Your task to perform on an android device: open app "Speedtest by Ookla" Image 0: 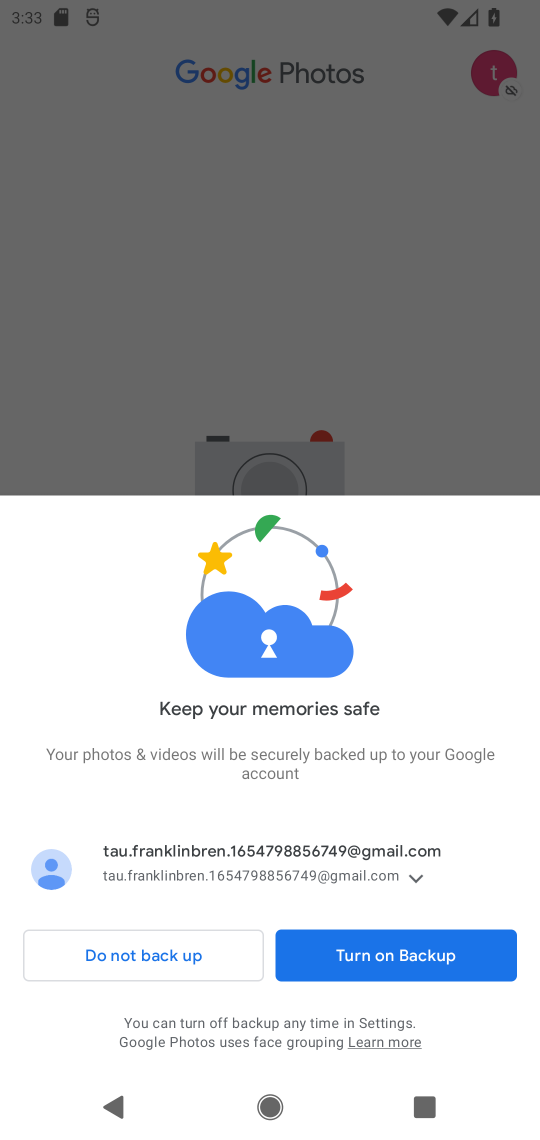
Step 0: press home button
Your task to perform on an android device: open app "Speedtest by Ookla" Image 1: 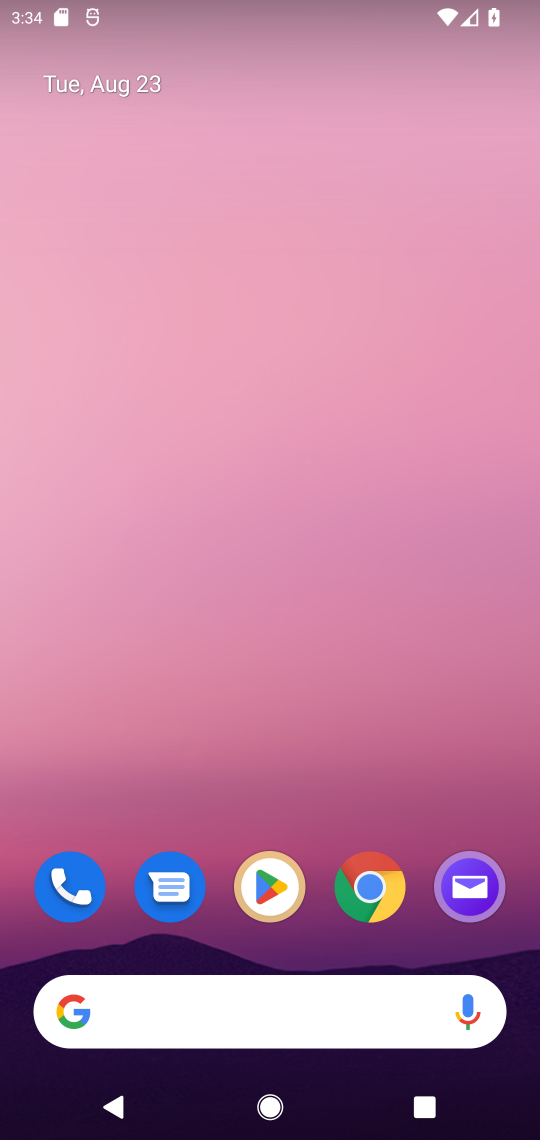
Step 1: click (260, 890)
Your task to perform on an android device: open app "Speedtest by Ookla" Image 2: 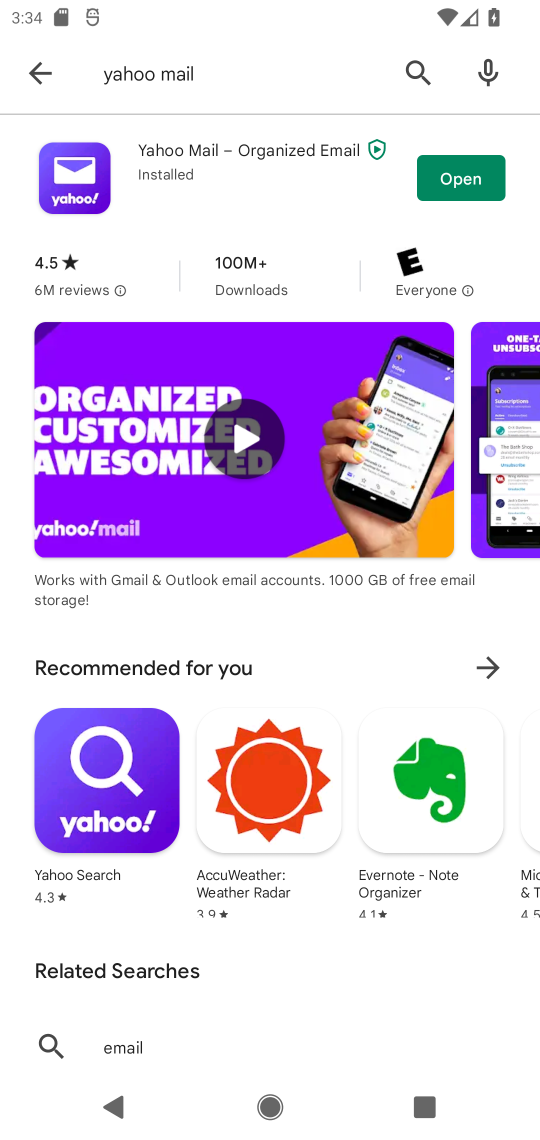
Step 2: click (38, 64)
Your task to perform on an android device: open app "Speedtest by Ookla" Image 3: 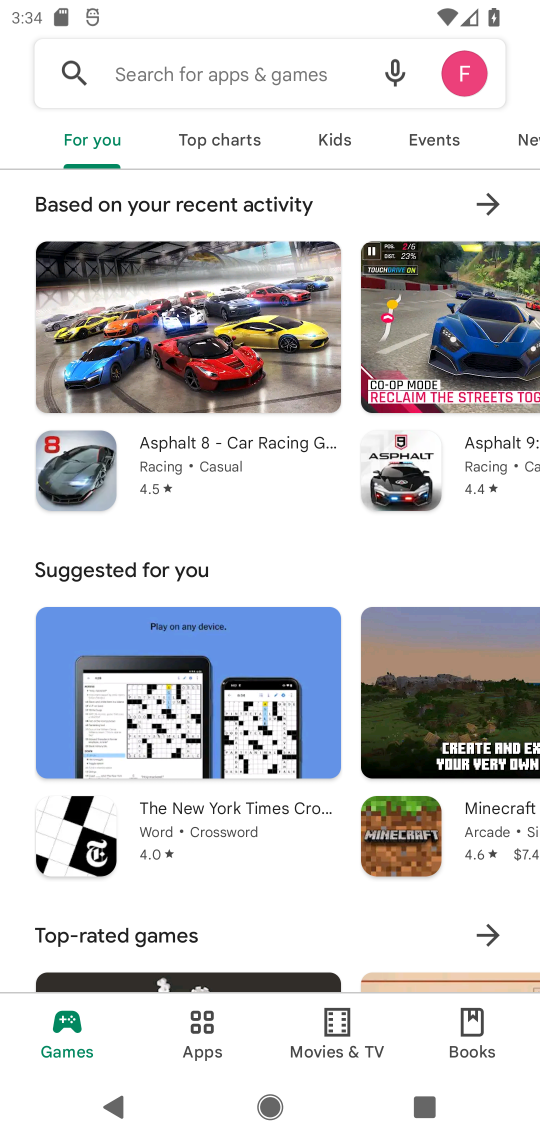
Step 3: click (176, 62)
Your task to perform on an android device: open app "Speedtest by Ookla" Image 4: 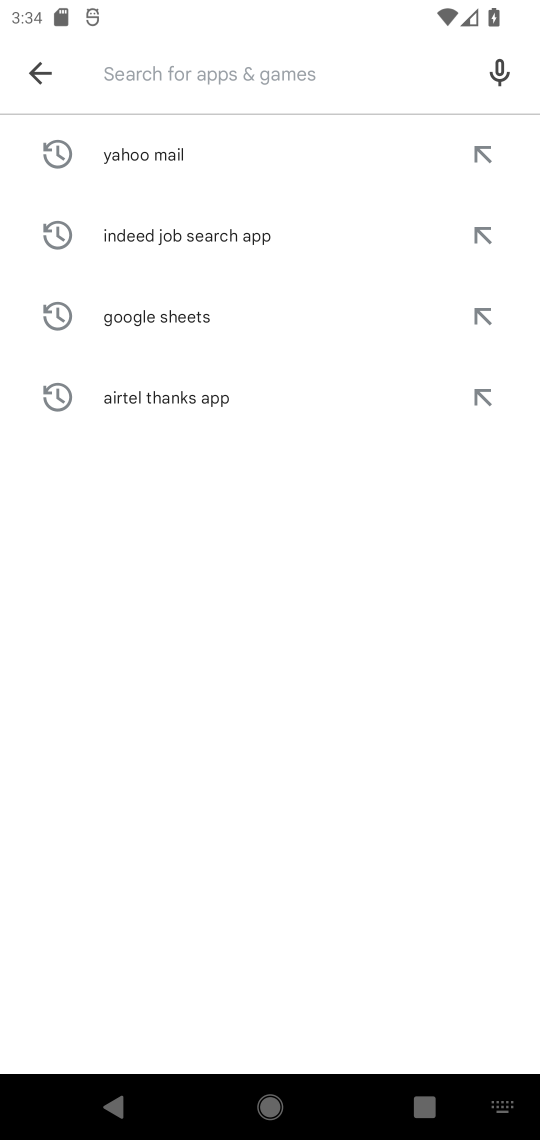
Step 4: type "Speedtest by Ookla"
Your task to perform on an android device: open app "Speedtest by Ookla" Image 5: 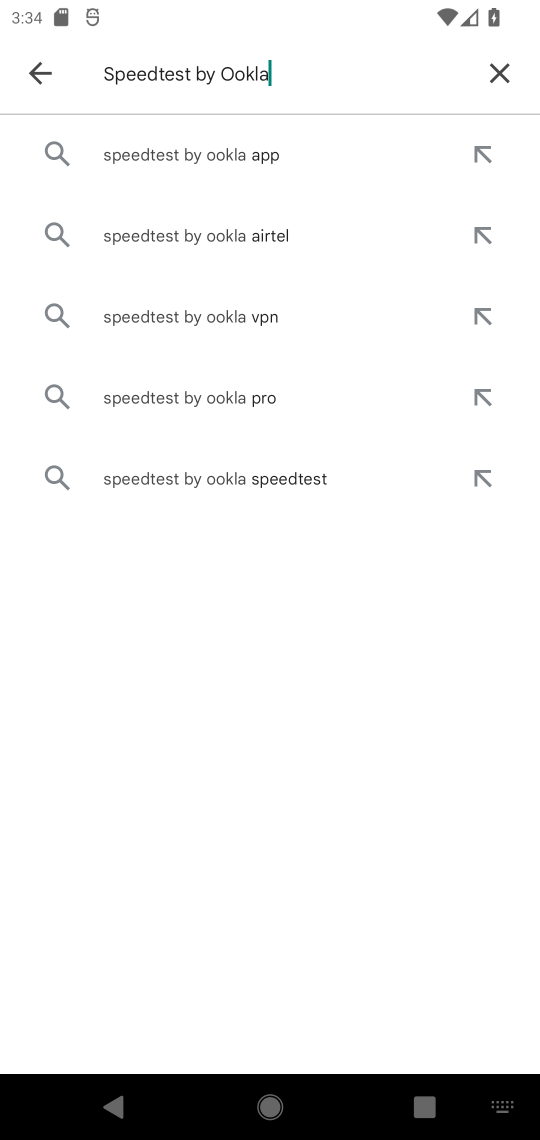
Step 5: click (125, 148)
Your task to perform on an android device: open app "Speedtest by Ookla" Image 6: 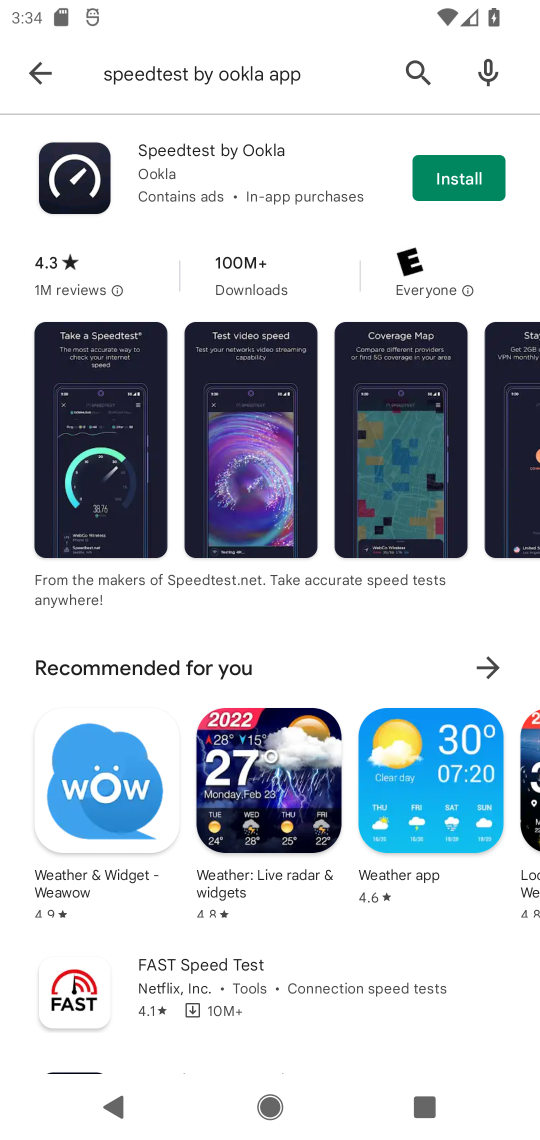
Step 6: click (454, 193)
Your task to perform on an android device: open app "Speedtest by Ookla" Image 7: 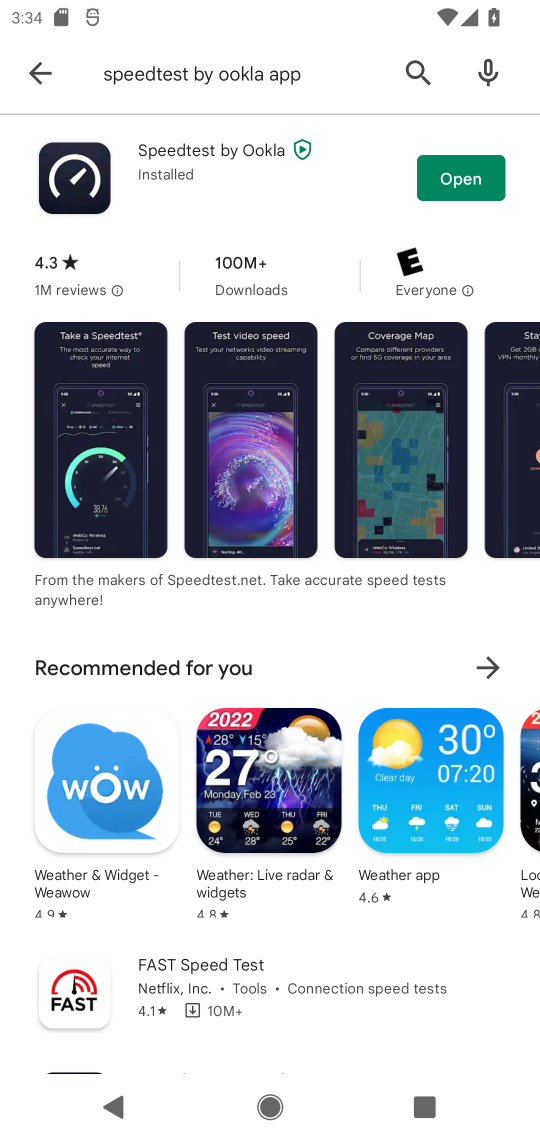
Step 7: click (443, 187)
Your task to perform on an android device: open app "Speedtest by Ookla" Image 8: 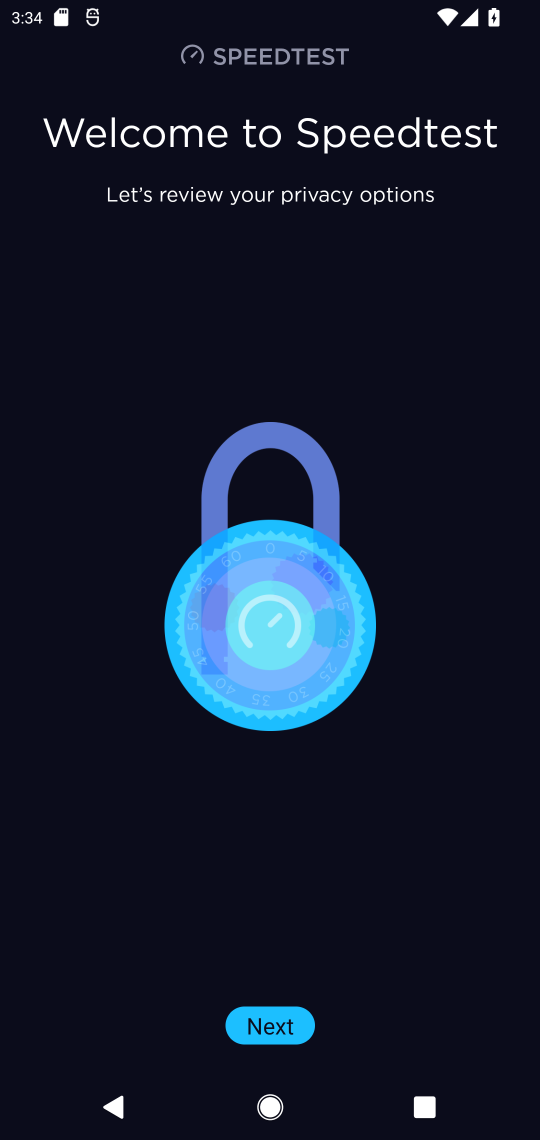
Step 8: task complete